Your task to perform on an android device: Search for sushi restaurants on Maps Image 0: 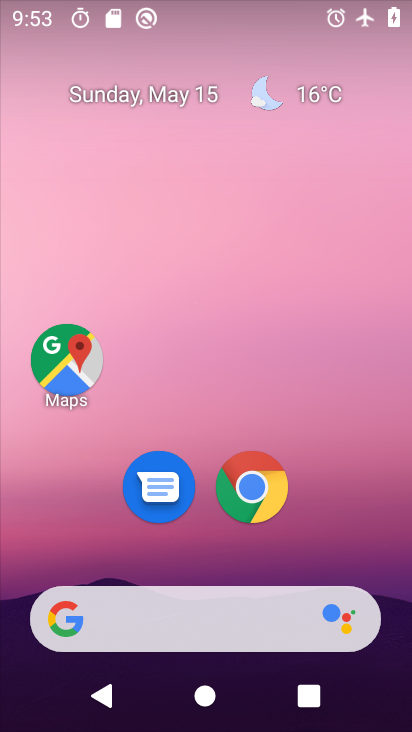
Step 0: drag from (355, 551) to (349, 199)
Your task to perform on an android device: Search for sushi restaurants on Maps Image 1: 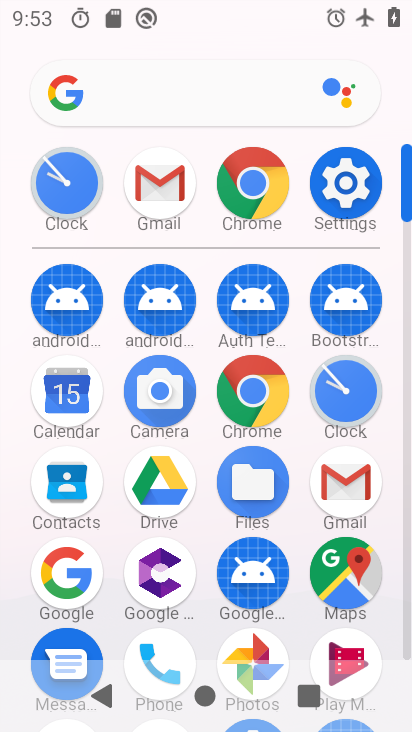
Step 1: click (333, 583)
Your task to perform on an android device: Search for sushi restaurants on Maps Image 2: 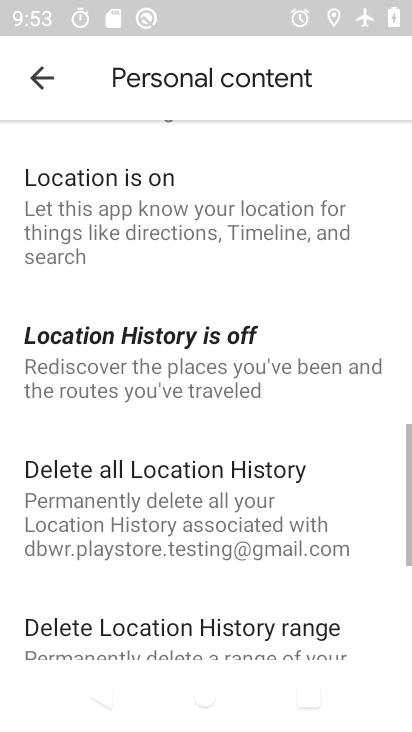
Step 2: click (39, 80)
Your task to perform on an android device: Search for sushi restaurants on Maps Image 3: 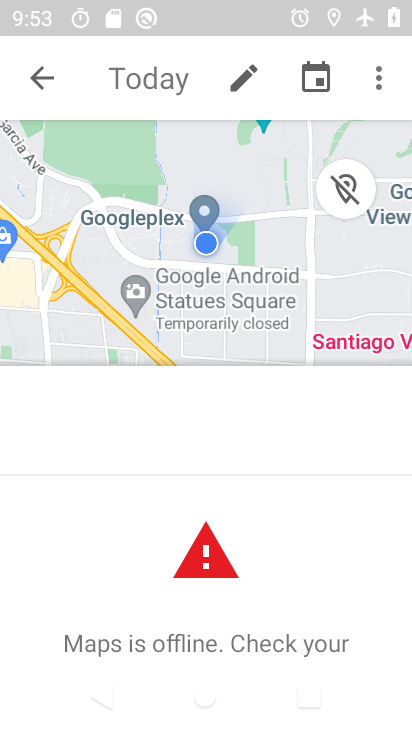
Step 3: click (46, 72)
Your task to perform on an android device: Search for sushi restaurants on Maps Image 4: 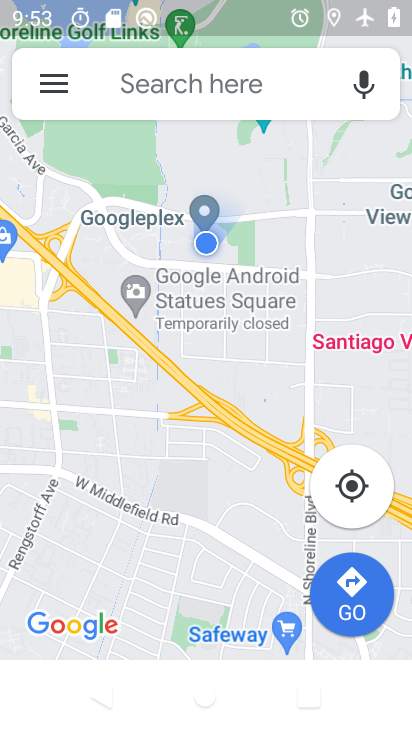
Step 4: click (164, 84)
Your task to perform on an android device: Search for sushi restaurants on Maps Image 5: 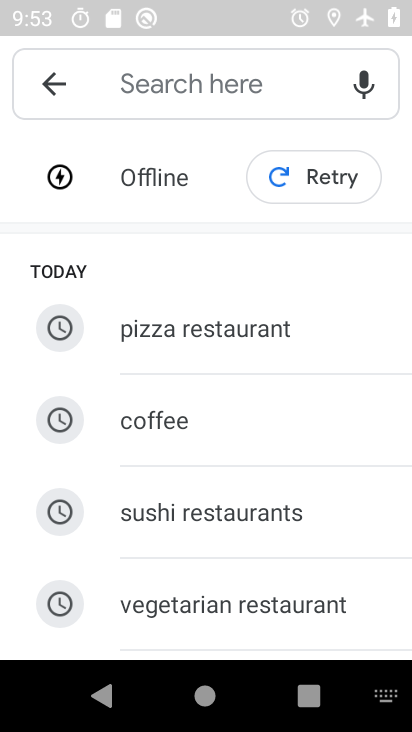
Step 5: type "sushi restaurant s"
Your task to perform on an android device: Search for sushi restaurants on Maps Image 6: 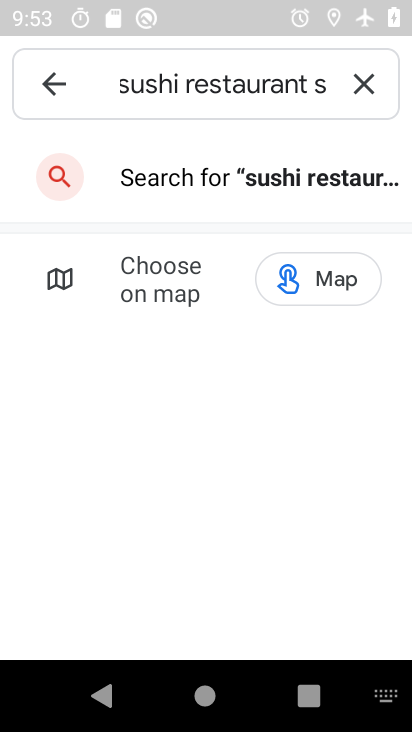
Step 6: click (264, 180)
Your task to perform on an android device: Search for sushi restaurants on Maps Image 7: 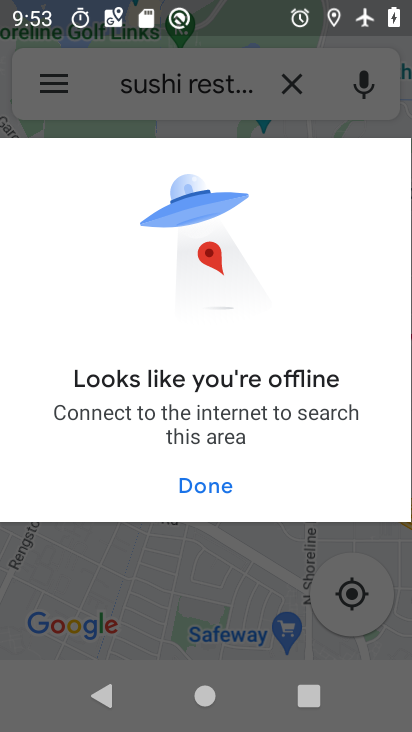
Step 7: task complete